Your task to perform on an android device: Go to settings Image 0: 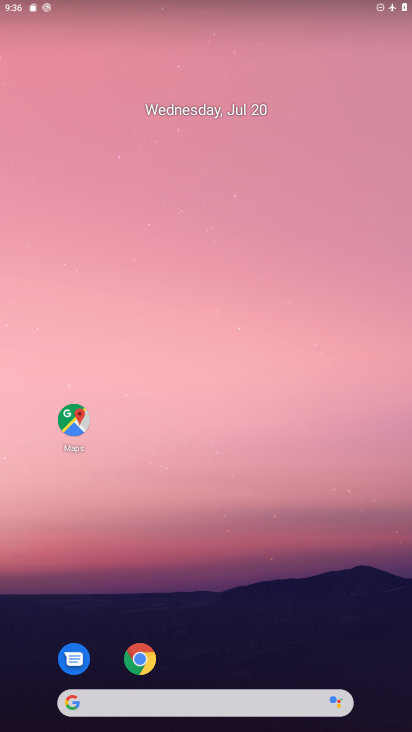
Step 0: click (246, 141)
Your task to perform on an android device: Go to settings Image 1: 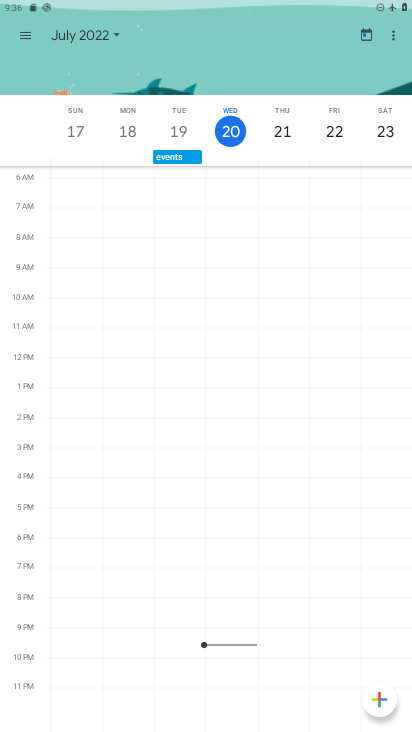
Step 1: press home button
Your task to perform on an android device: Go to settings Image 2: 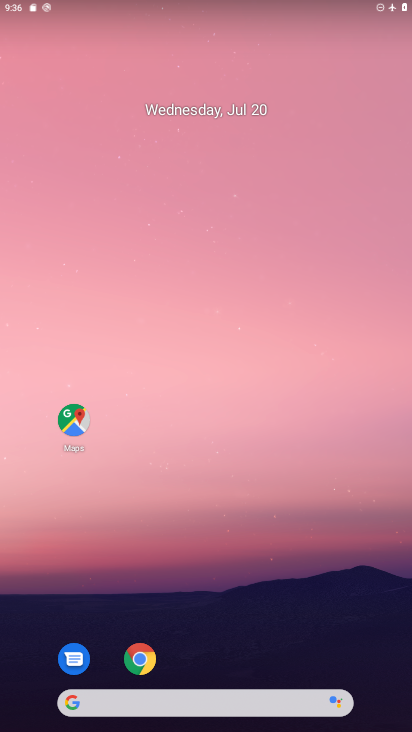
Step 2: drag from (295, 587) to (252, 27)
Your task to perform on an android device: Go to settings Image 3: 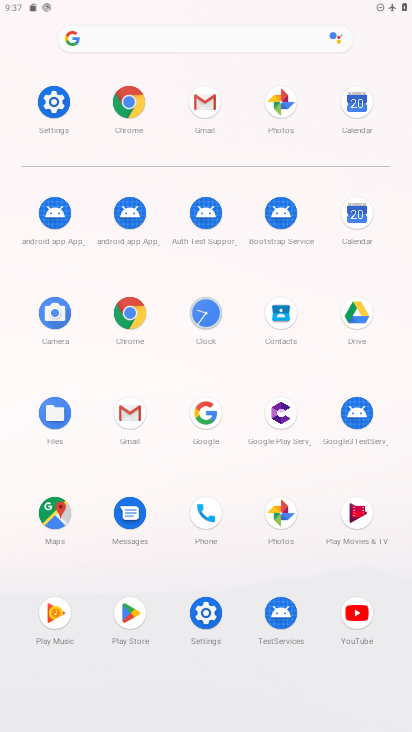
Step 3: click (205, 618)
Your task to perform on an android device: Go to settings Image 4: 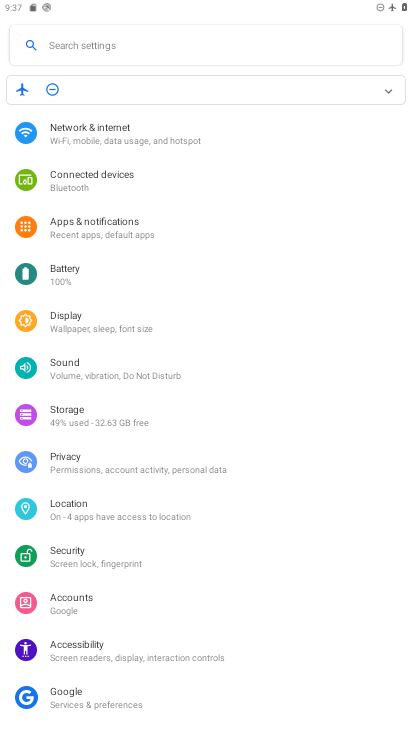
Step 4: task complete